Your task to perform on an android device: When is my next meeting? Image 0: 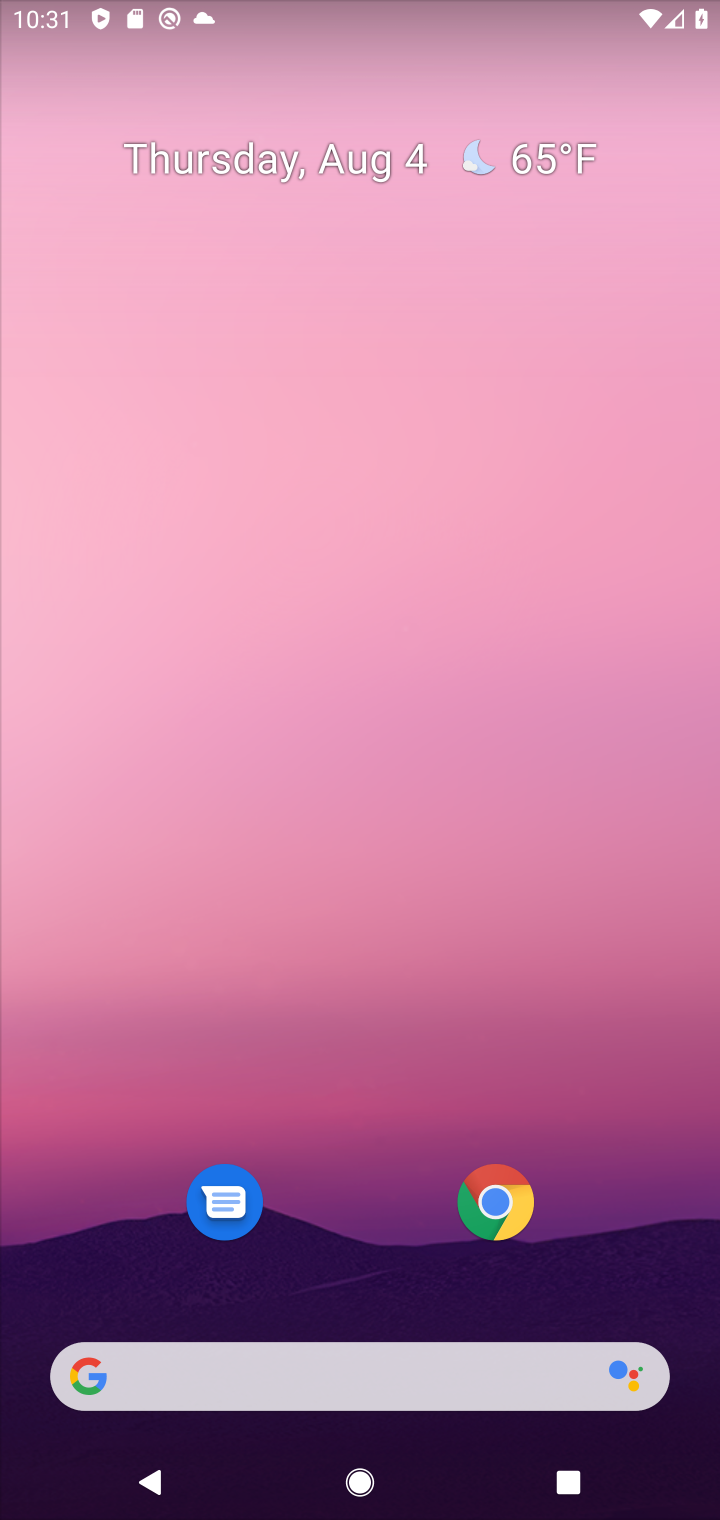
Step 0: drag from (384, 756) to (465, 129)
Your task to perform on an android device: When is my next meeting? Image 1: 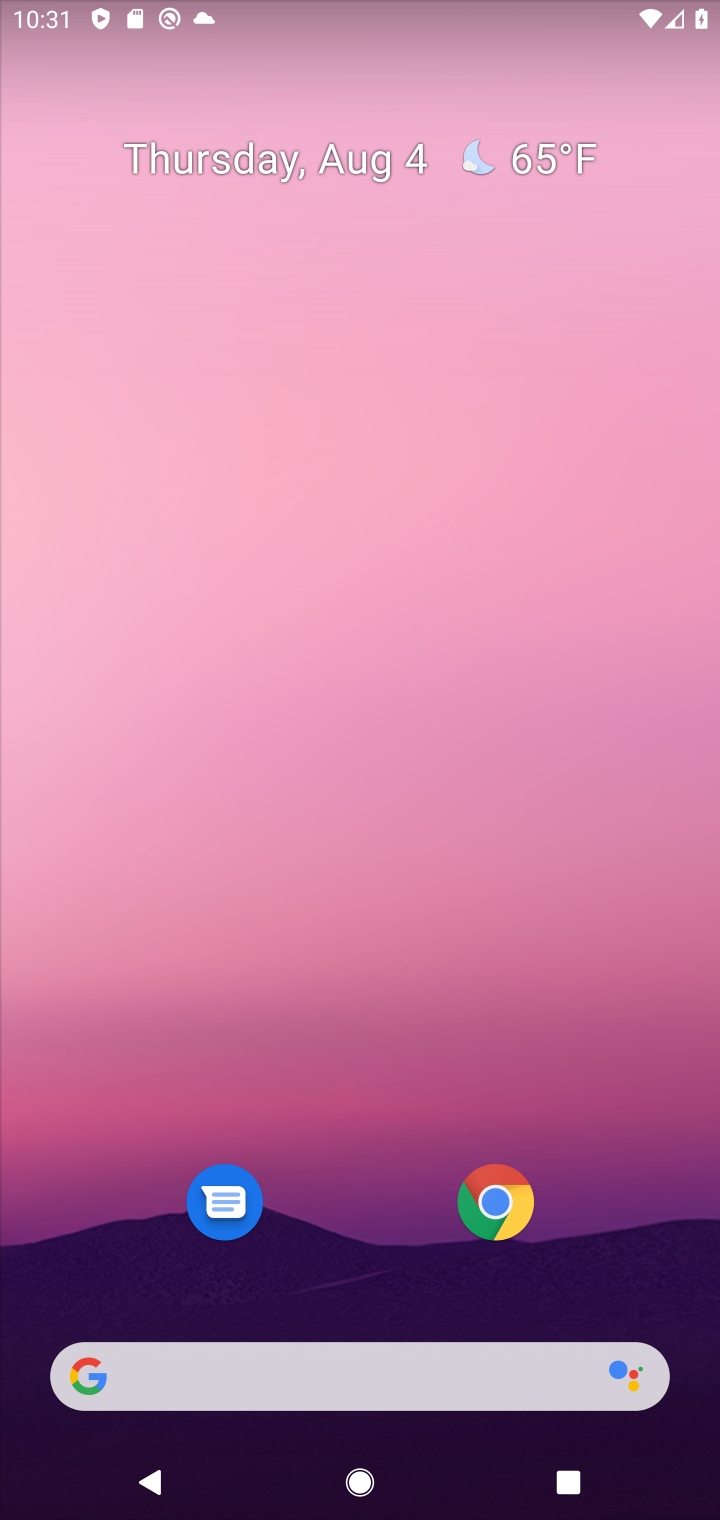
Step 1: drag from (415, 1073) to (418, 318)
Your task to perform on an android device: When is my next meeting? Image 2: 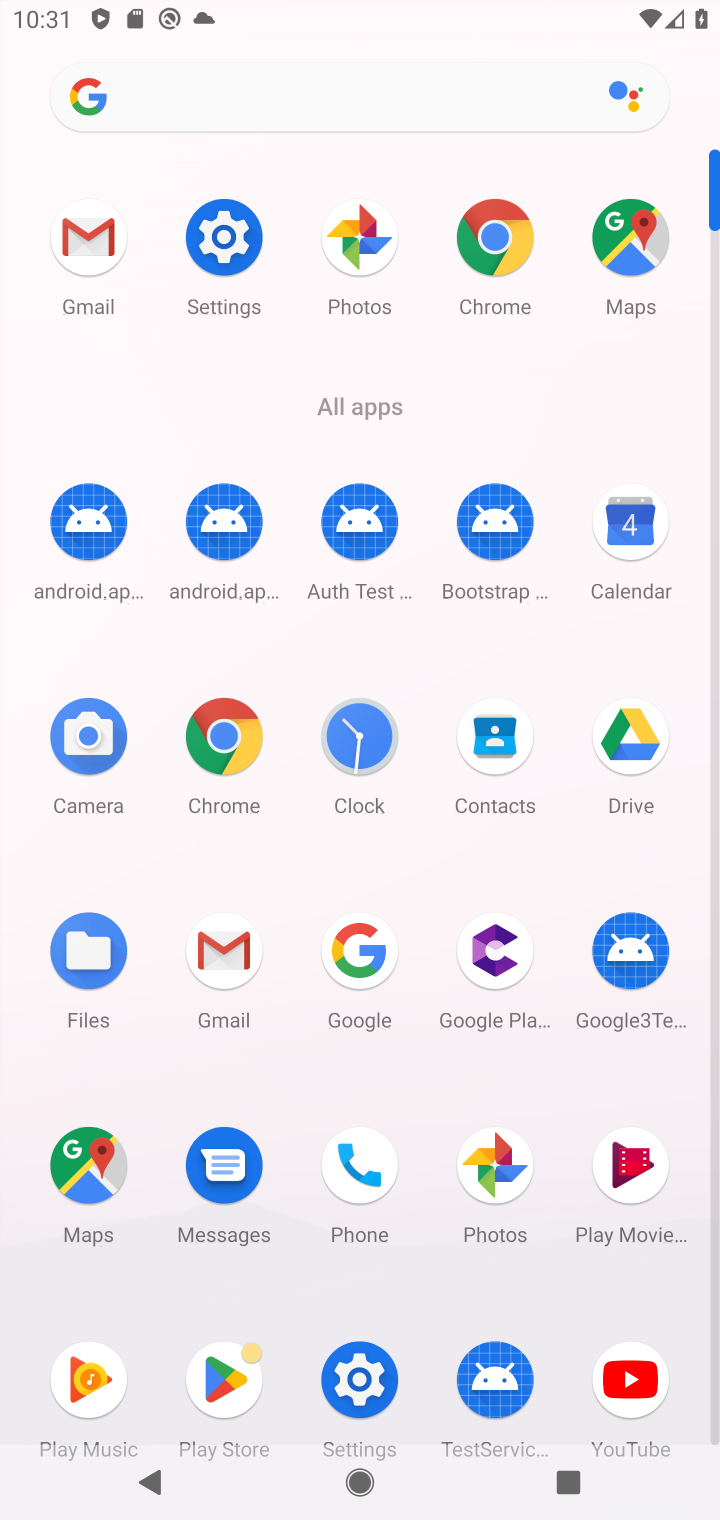
Step 2: click (636, 481)
Your task to perform on an android device: When is my next meeting? Image 3: 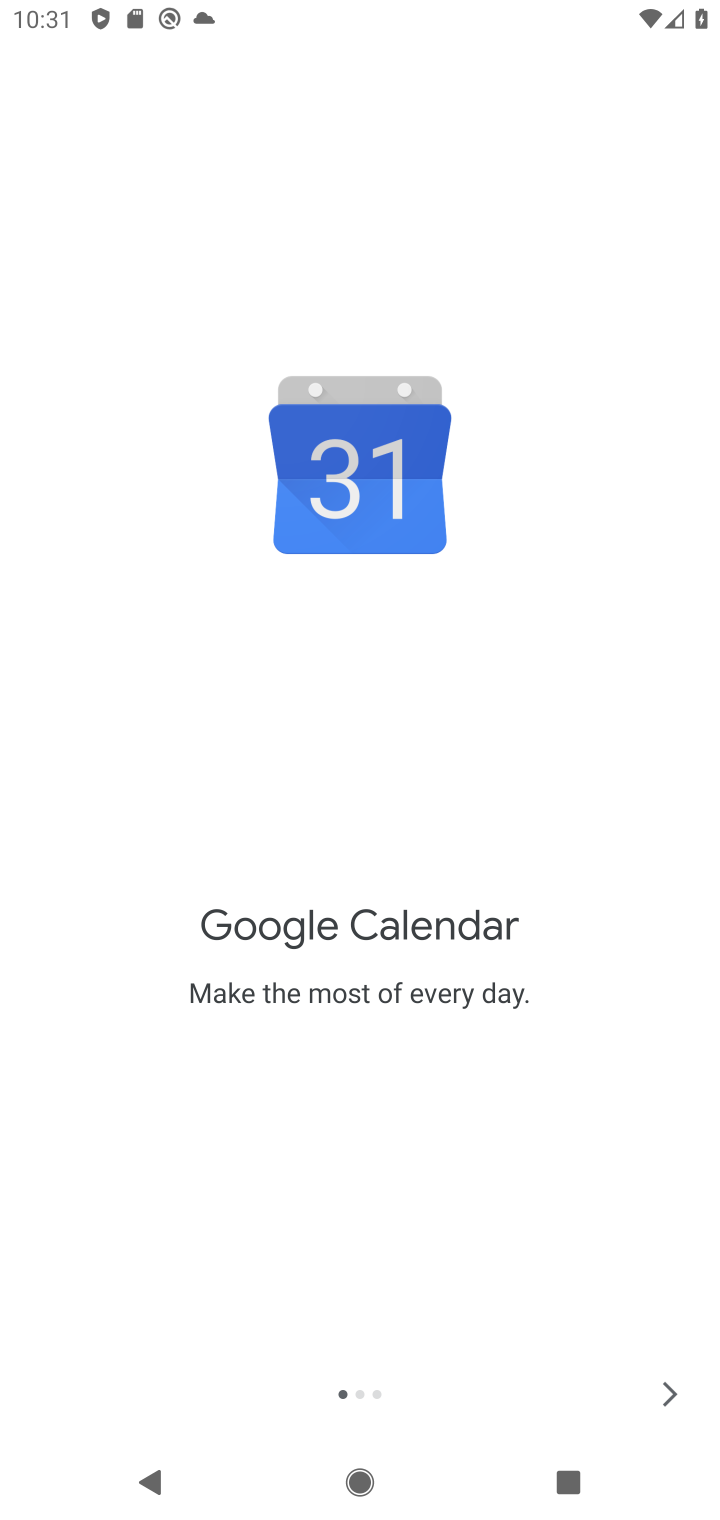
Step 3: click (679, 1410)
Your task to perform on an android device: When is my next meeting? Image 4: 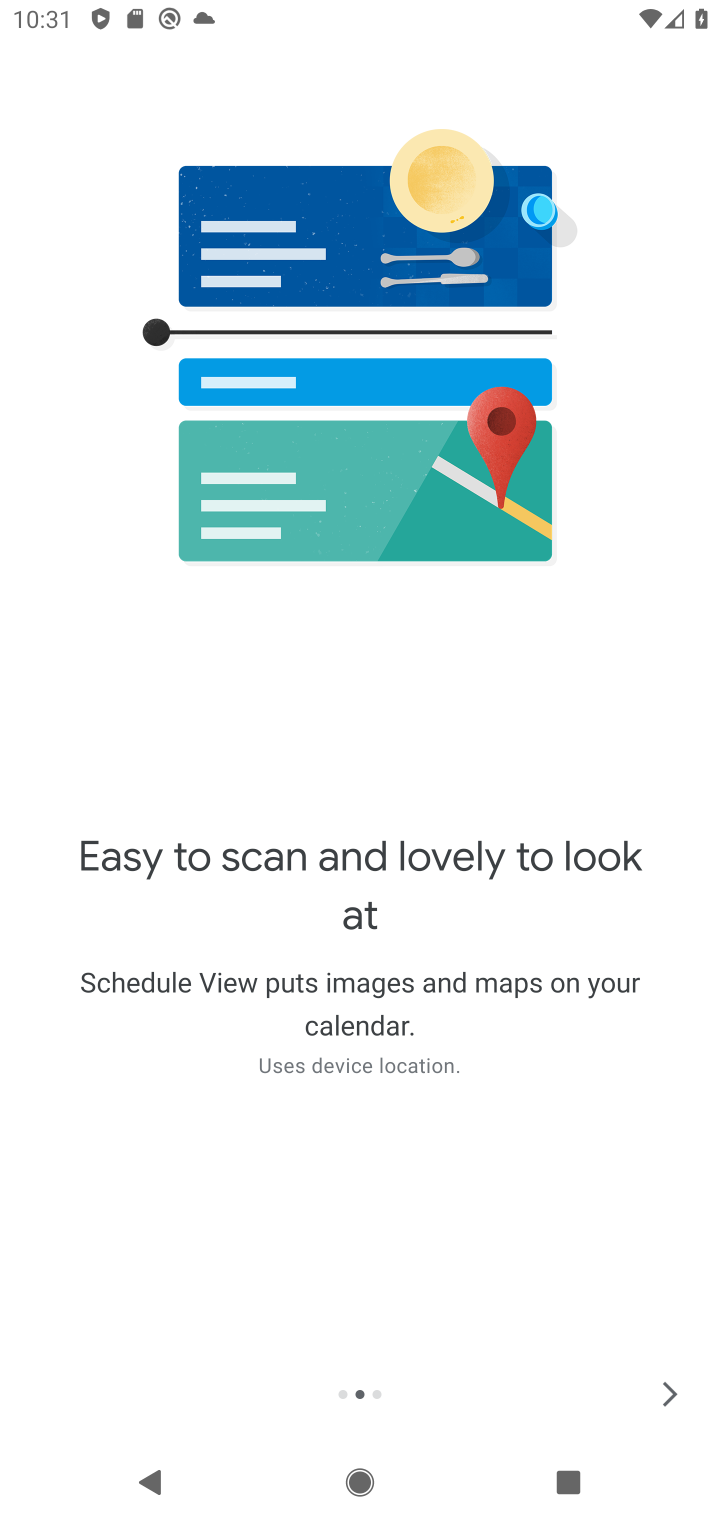
Step 4: click (668, 1404)
Your task to perform on an android device: When is my next meeting? Image 5: 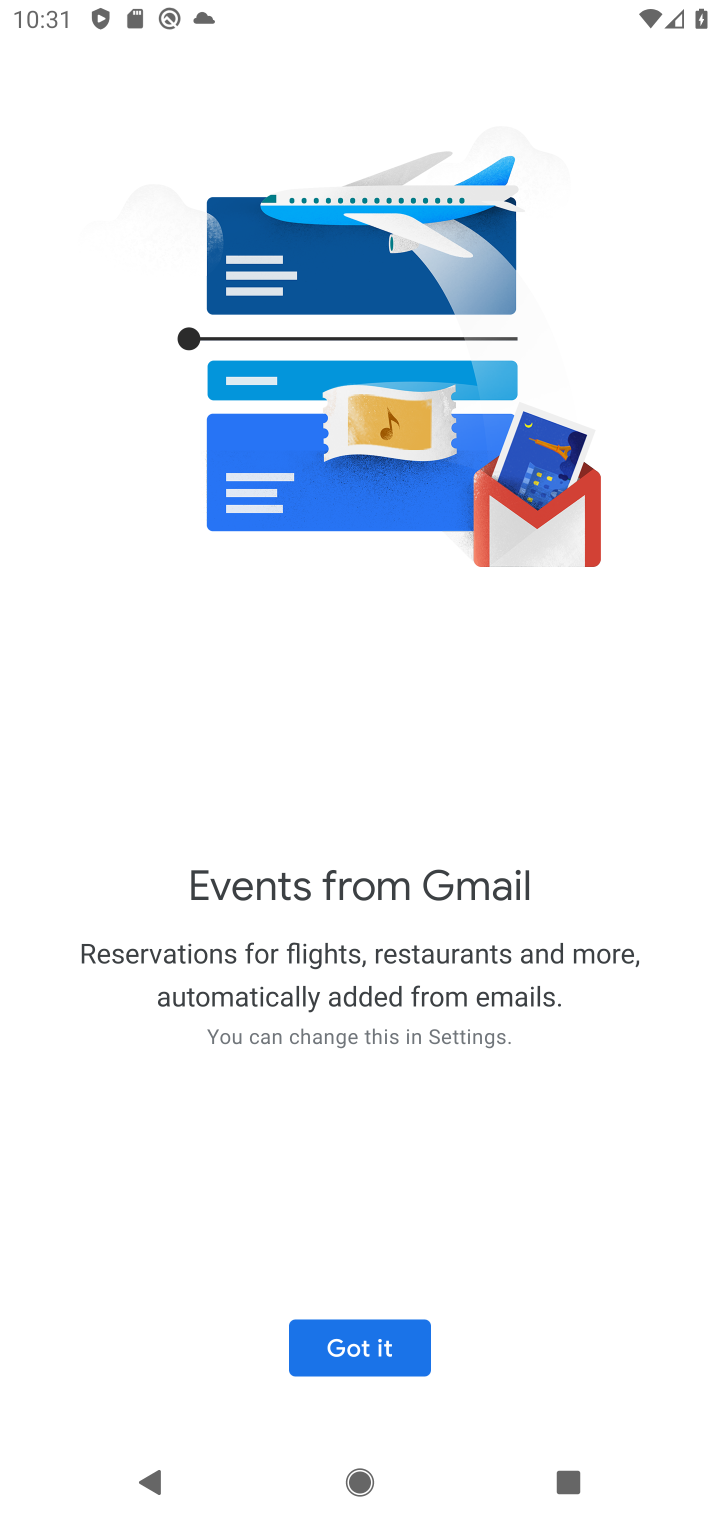
Step 5: click (350, 1348)
Your task to perform on an android device: When is my next meeting? Image 6: 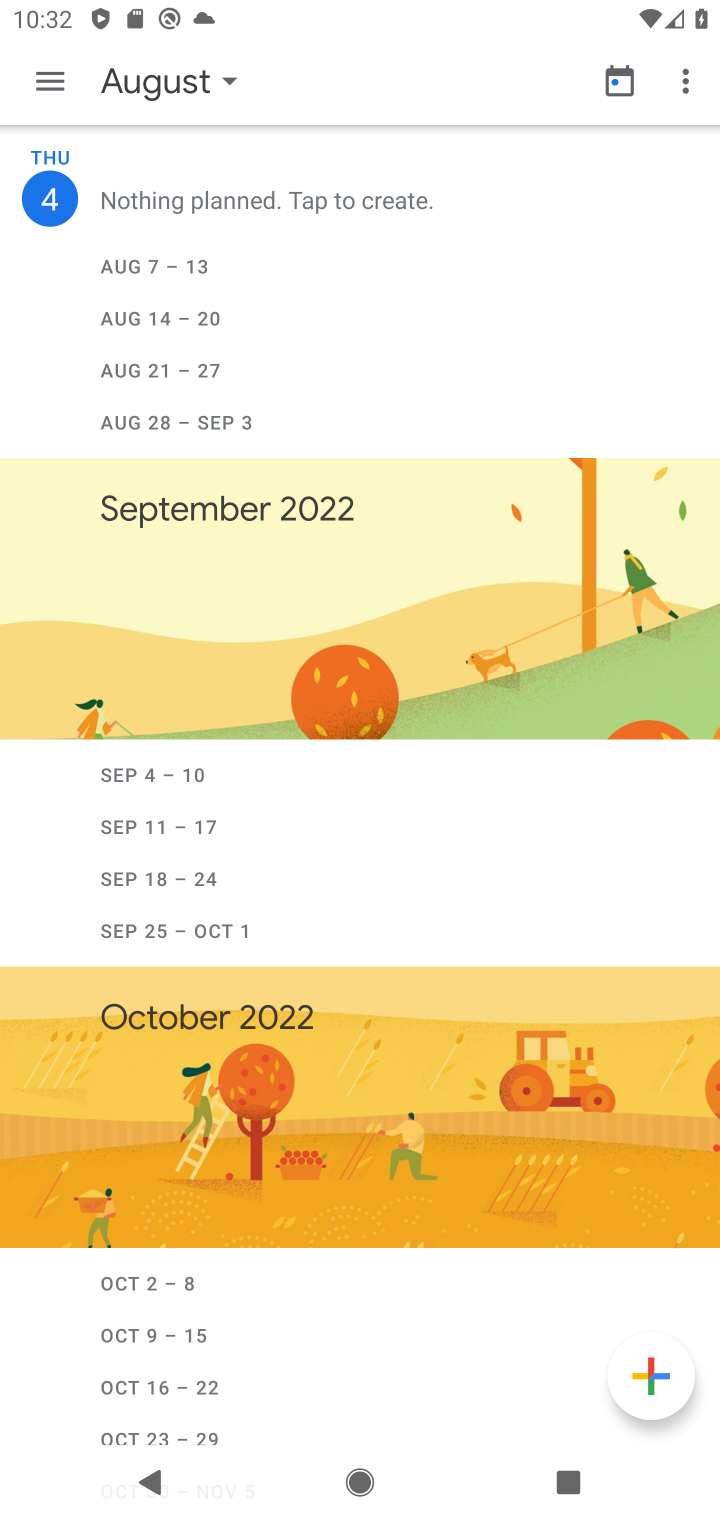
Step 6: task complete